Your task to perform on an android device: Go to Google maps Image 0: 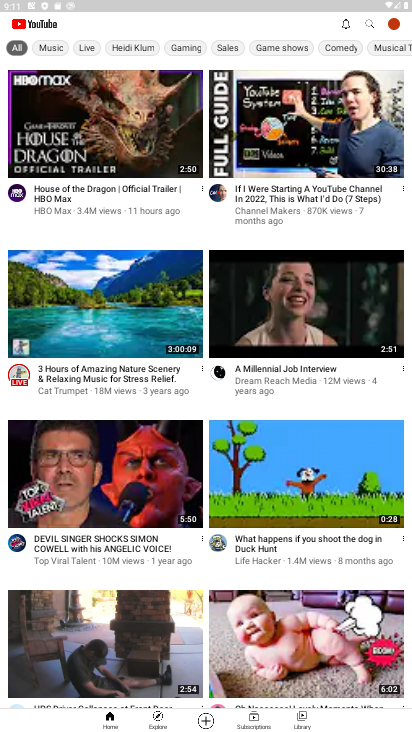
Step 0: press home button
Your task to perform on an android device: Go to Google maps Image 1: 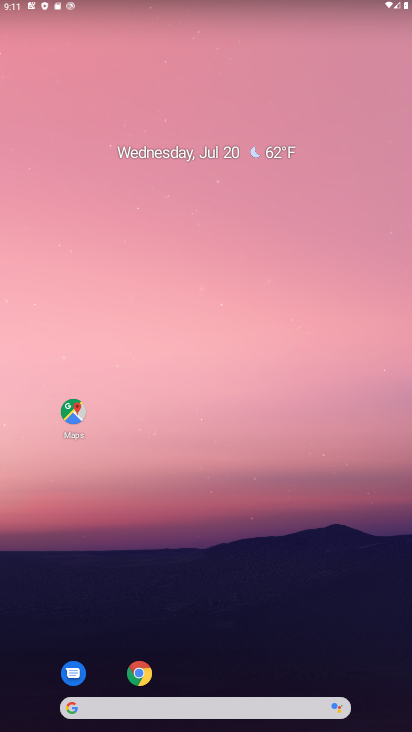
Step 1: click (76, 420)
Your task to perform on an android device: Go to Google maps Image 2: 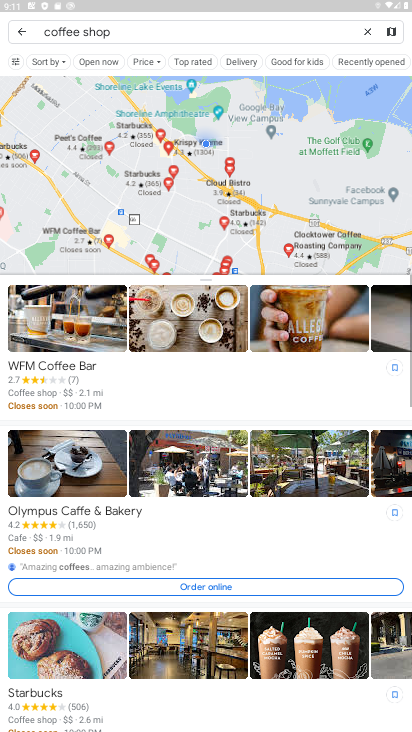
Step 2: click (24, 33)
Your task to perform on an android device: Go to Google maps Image 3: 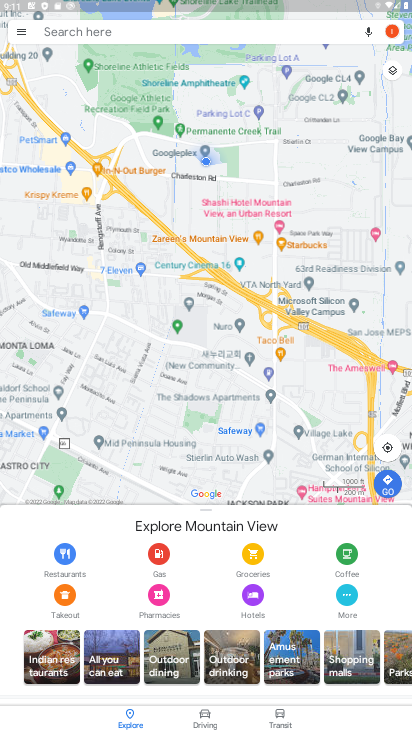
Step 3: task complete